Your task to perform on an android device: turn off javascript in the chrome app Image 0: 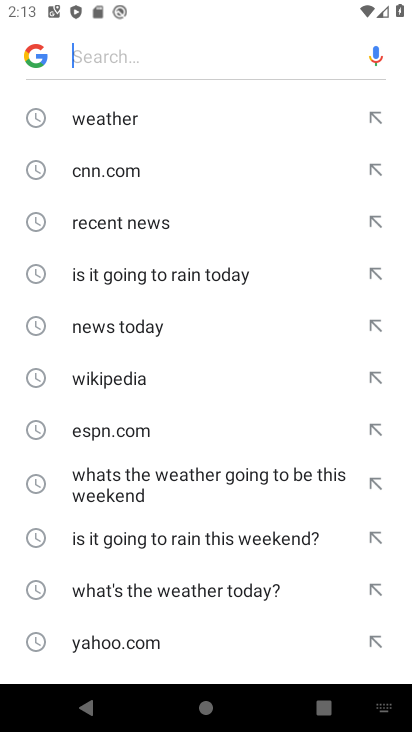
Step 0: press home button
Your task to perform on an android device: turn off javascript in the chrome app Image 1: 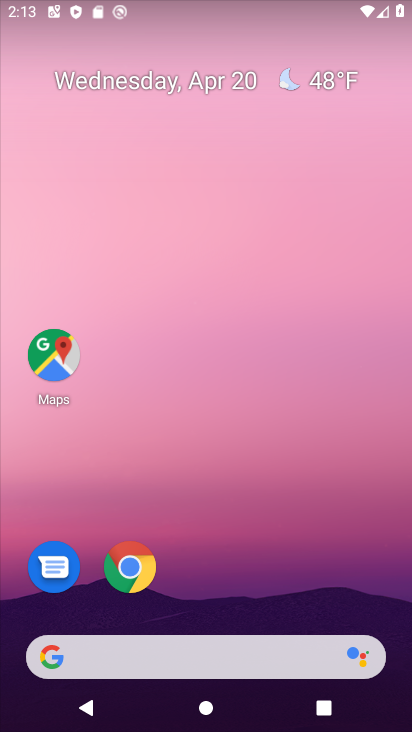
Step 1: click (119, 567)
Your task to perform on an android device: turn off javascript in the chrome app Image 2: 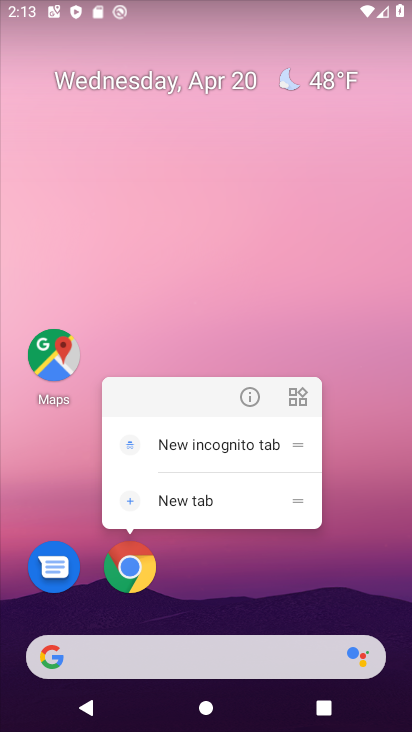
Step 2: click (138, 572)
Your task to perform on an android device: turn off javascript in the chrome app Image 3: 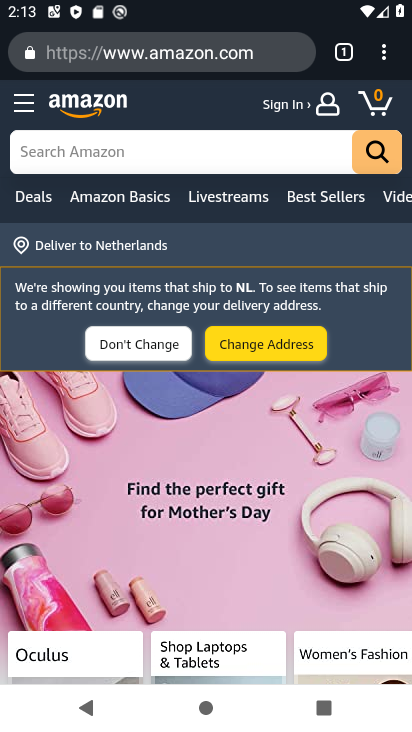
Step 3: click (387, 56)
Your task to perform on an android device: turn off javascript in the chrome app Image 4: 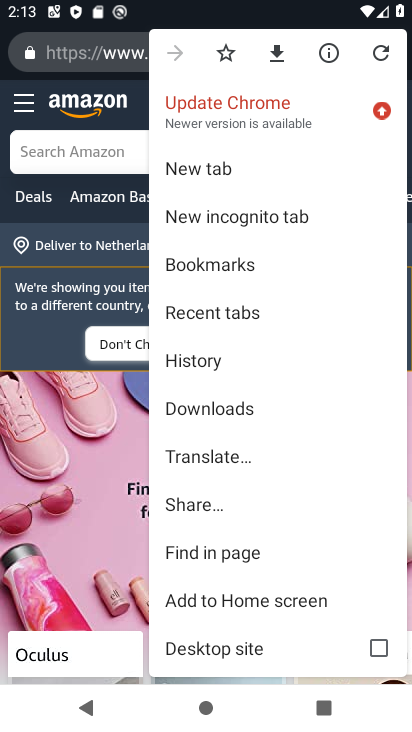
Step 4: drag from (291, 290) to (283, 238)
Your task to perform on an android device: turn off javascript in the chrome app Image 5: 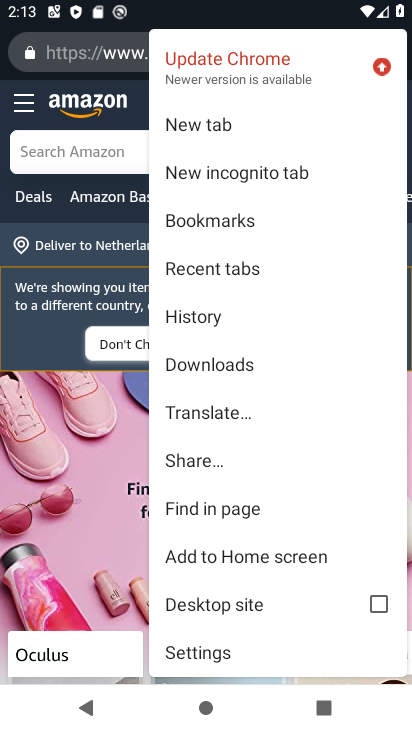
Step 5: click (233, 648)
Your task to perform on an android device: turn off javascript in the chrome app Image 6: 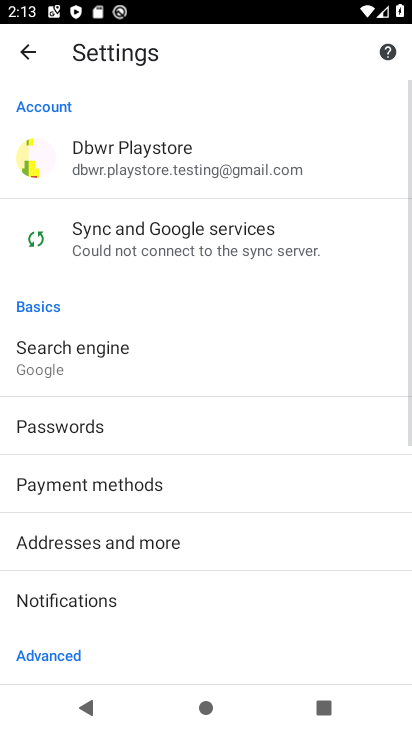
Step 6: drag from (191, 608) to (197, 259)
Your task to perform on an android device: turn off javascript in the chrome app Image 7: 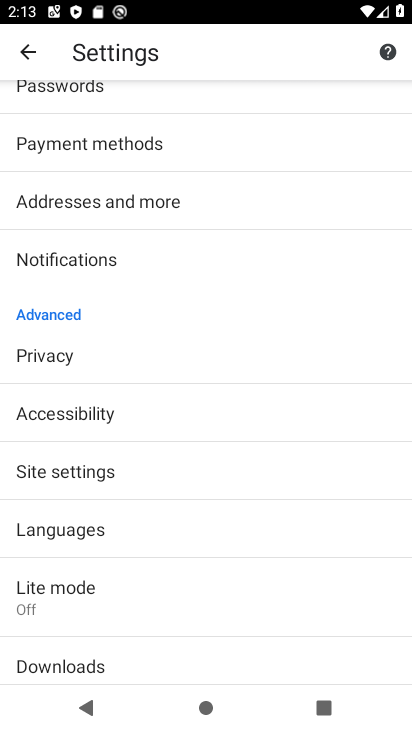
Step 7: click (120, 470)
Your task to perform on an android device: turn off javascript in the chrome app Image 8: 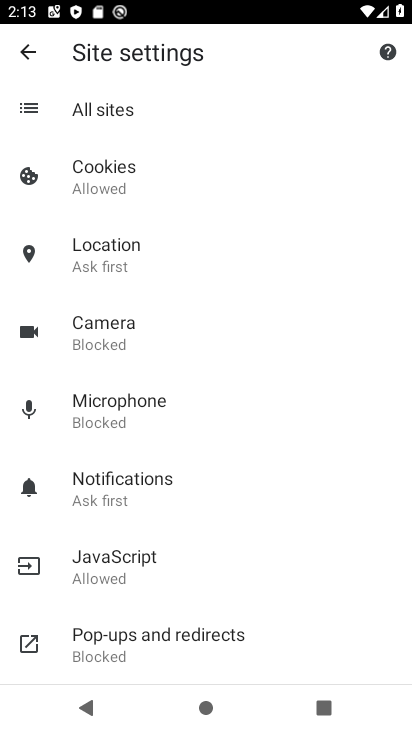
Step 8: click (137, 564)
Your task to perform on an android device: turn off javascript in the chrome app Image 9: 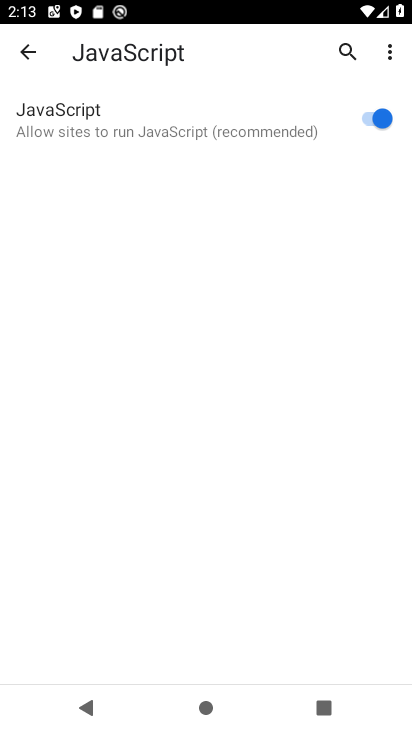
Step 9: click (371, 120)
Your task to perform on an android device: turn off javascript in the chrome app Image 10: 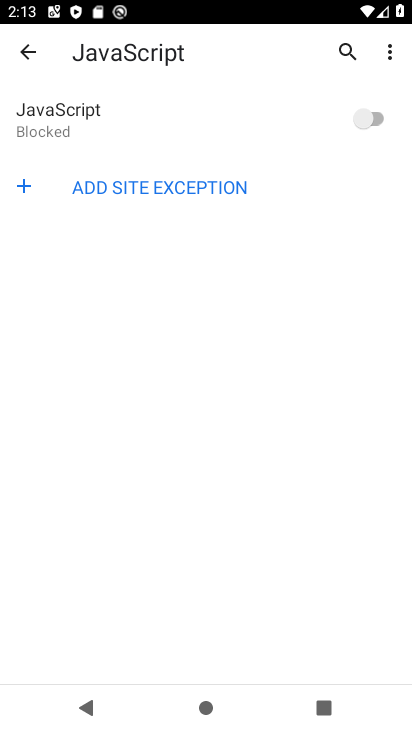
Step 10: task complete